Your task to perform on an android device: turn on notifications settings in the gmail app Image 0: 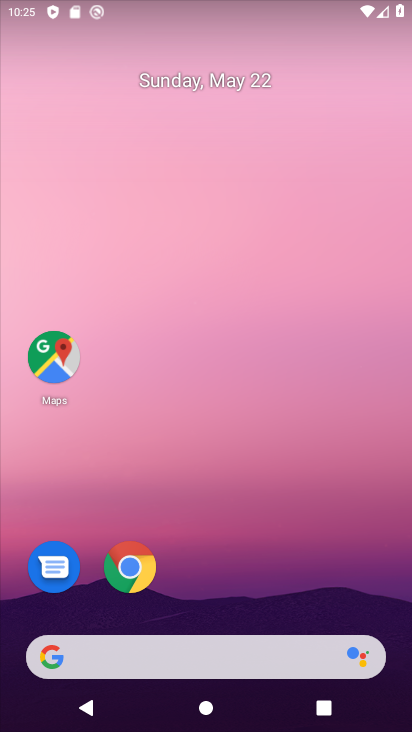
Step 0: drag from (399, 617) to (333, 47)
Your task to perform on an android device: turn on notifications settings in the gmail app Image 1: 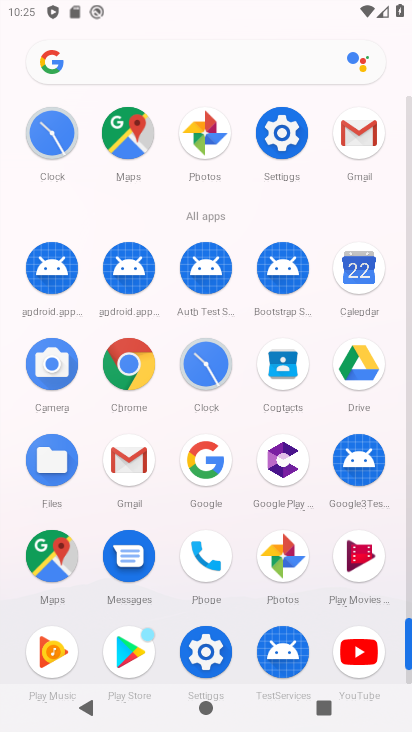
Step 1: click (129, 462)
Your task to perform on an android device: turn on notifications settings in the gmail app Image 2: 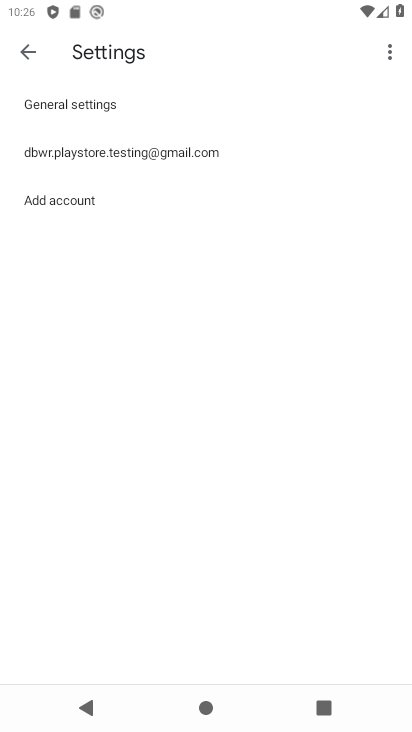
Step 2: click (119, 151)
Your task to perform on an android device: turn on notifications settings in the gmail app Image 3: 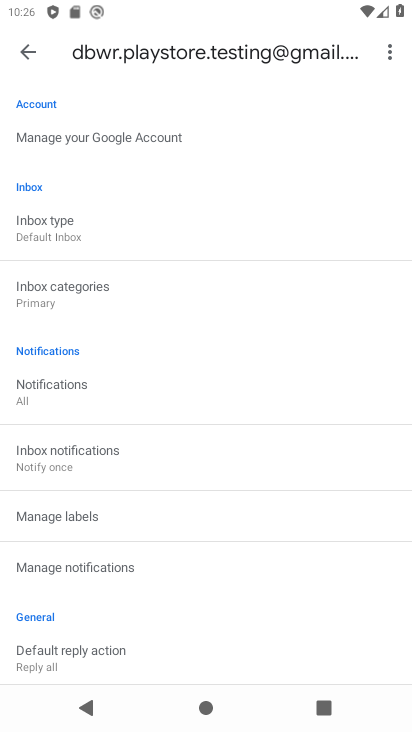
Step 3: click (64, 566)
Your task to perform on an android device: turn on notifications settings in the gmail app Image 4: 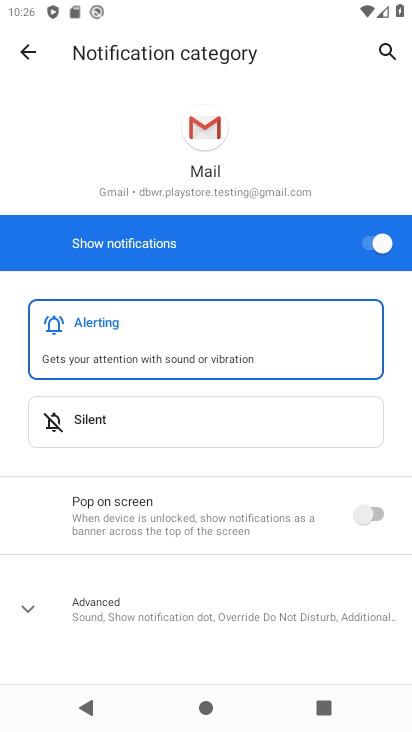
Step 4: task complete